Your task to perform on an android device: turn off wifi Image 0: 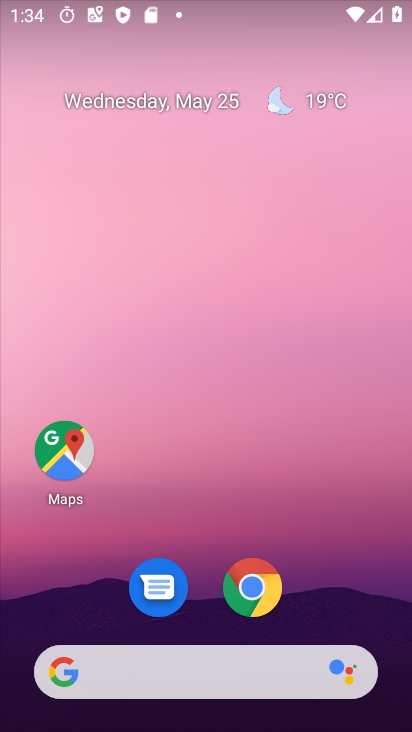
Step 0: drag from (213, 699) to (228, 18)
Your task to perform on an android device: turn off wifi Image 1: 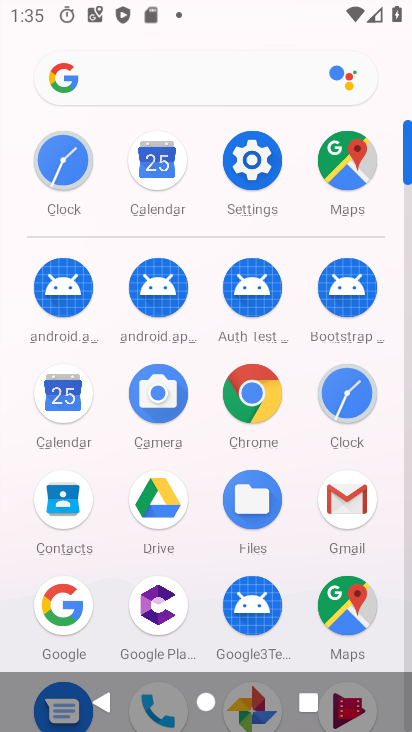
Step 1: click (258, 162)
Your task to perform on an android device: turn off wifi Image 2: 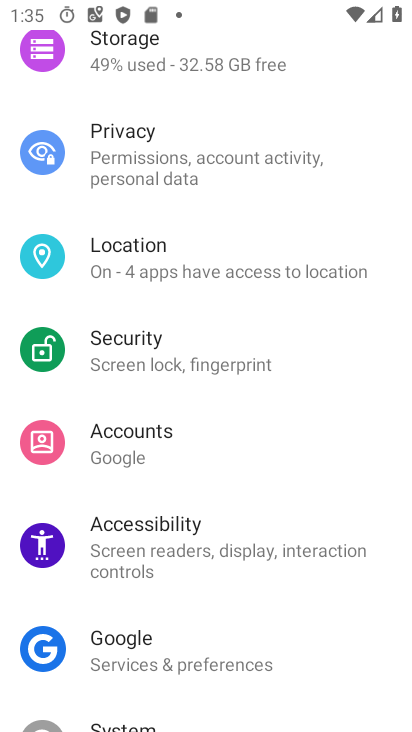
Step 2: drag from (221, 124) to (242, 557)
Your task to perform on an android device: turn off wifi Image 3: 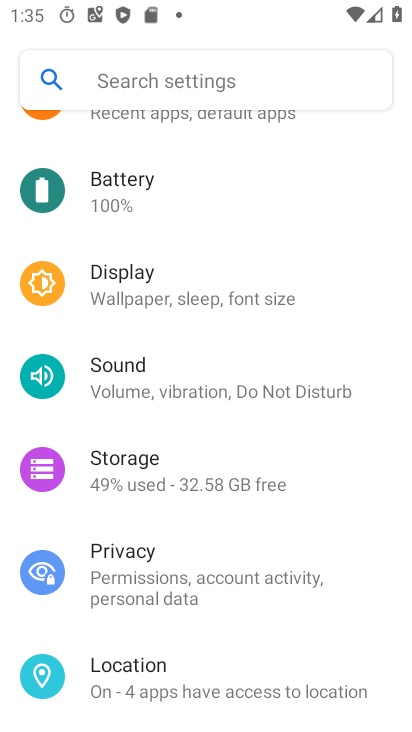
Step 3: drag from (218, 141) to (227, 493)
Your task to perform on an android device: turn off wifi Image 4: 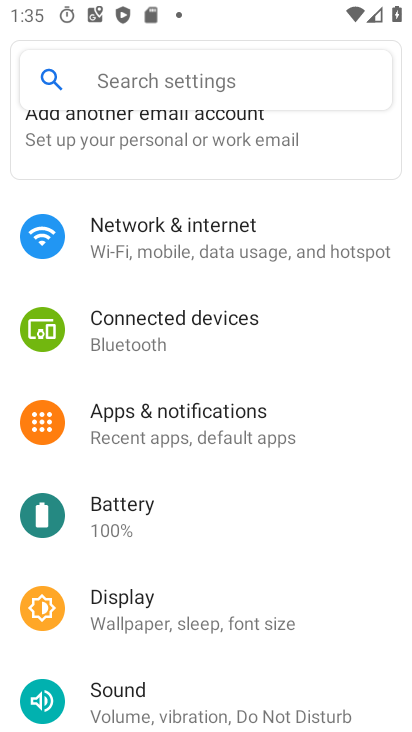
Step 4: click (192, 238)
Your task to perform on an android device: turn off wifi Image 5: 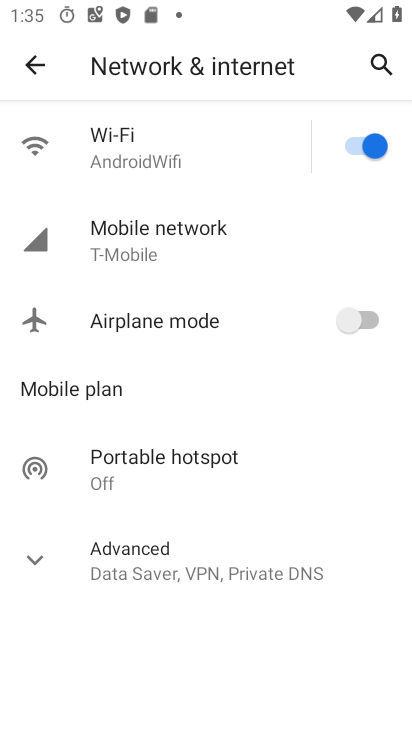
Step 5: click (355, 144)
Your task to perform on an android device: turn off wifi Image 6: 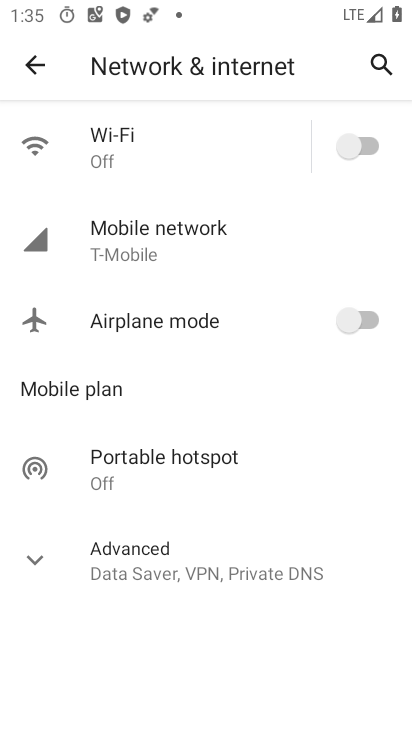
Step 6: task complete